Your task to perform on an android device: toggle data saver in the chrome app Image 0: 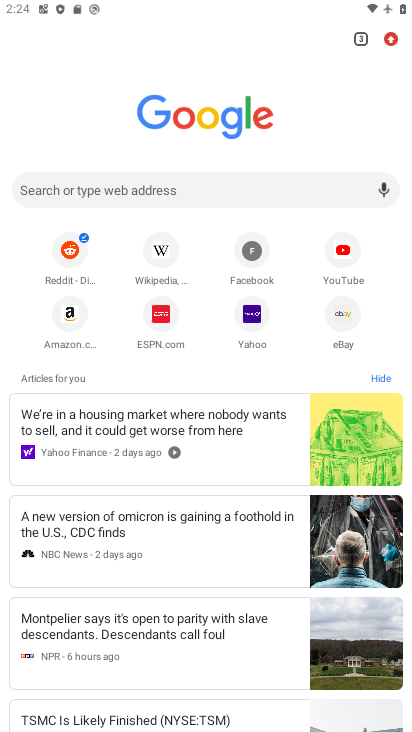
Step 0: drag from (394, 38) to (257, 361)
Your task to perform on an android device: toggle data saver in the chrome app Image 1: 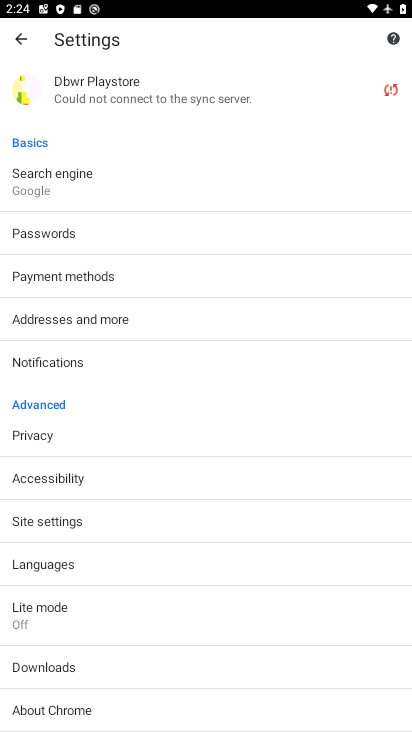
Step 1: click (30, 522)
Your task to perform on an android device: toggle data saver in the chrome app Image 2: 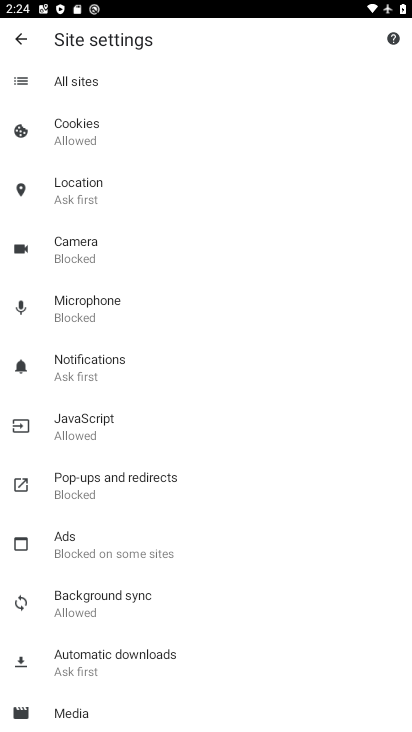
Step 2: click (14, 27)
Your task to perform on an android device: toggle data saver in the chrome app Image 3: 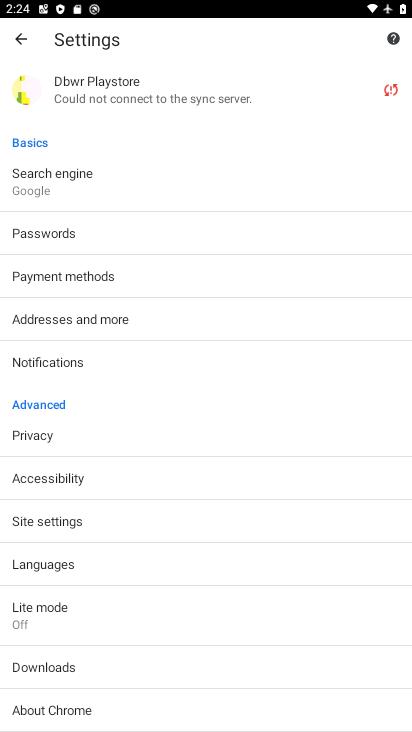
Step 3: click (46, 602)
Your task to perform on an android device: toggle data saver in the chrome app Image 4: 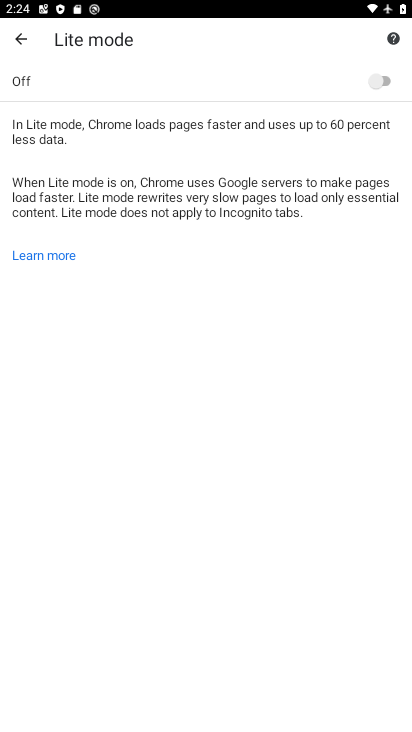
Step 4: click (373, 82)
Your task to perform on an android device: toggle data saver in the chrome app Image 5: 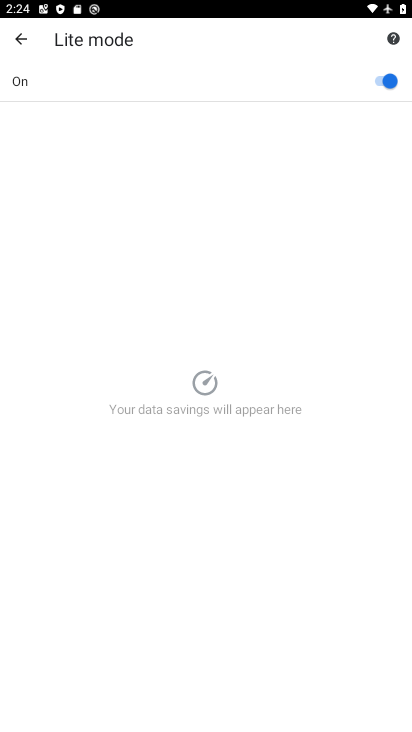
Step 5: task complete